Your task to perform on an android device: Play the last video I watched on Youtube Image 0: 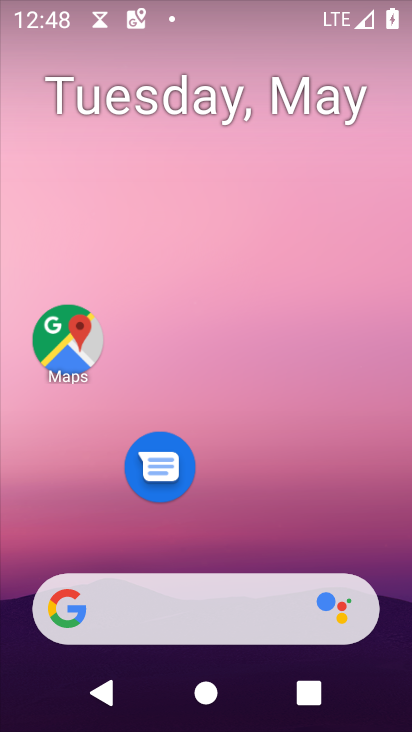
Step 0: drag from (279, 529) to (316, 56)
Your task to perform on an android device: Play the last video I watched on Youtube Image 1: 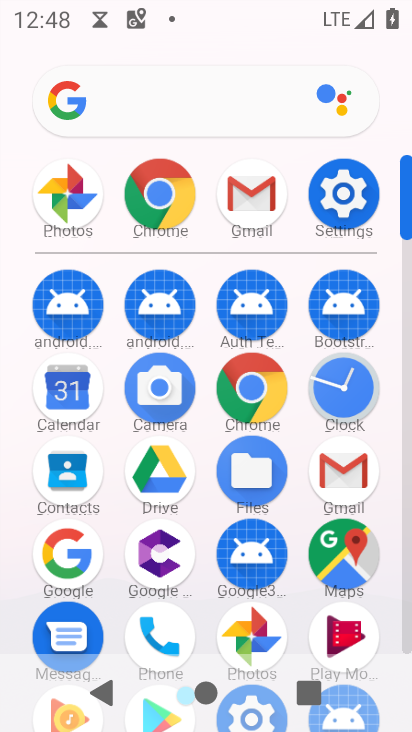
Step 1: drag from (312, 597) to (303, 260)
Your task to perform on an android device: Play the last video I watched on Youtube Image 2: 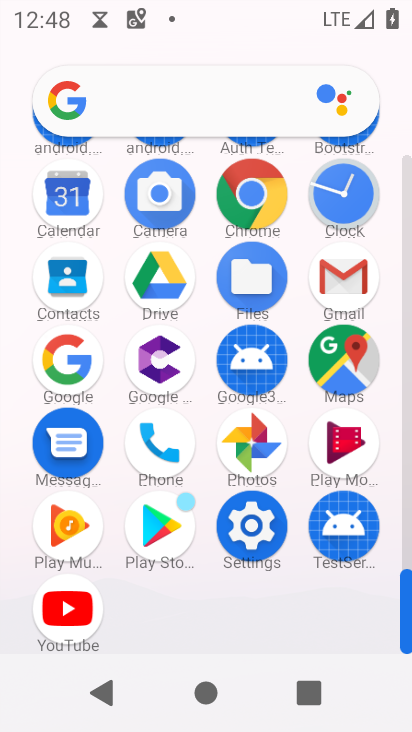
Step 2: click (66, 610)
Your task to perform on an android device: Play the last video I watched on Youtube Image 3: 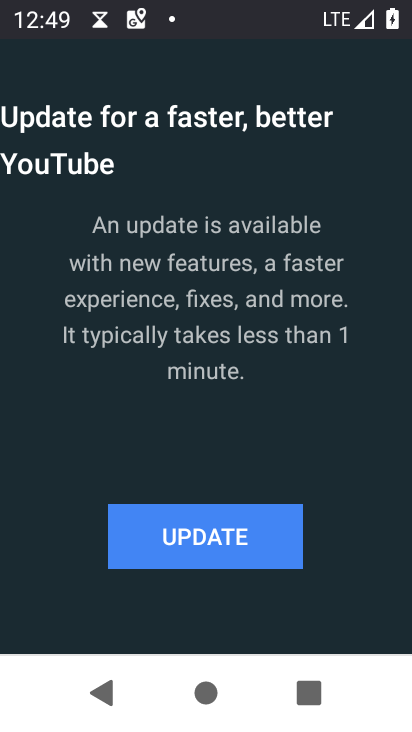
Step 3: click (191, 541)
Your task to perform on an android device: Play the last video I watched on Youtube Image 4: 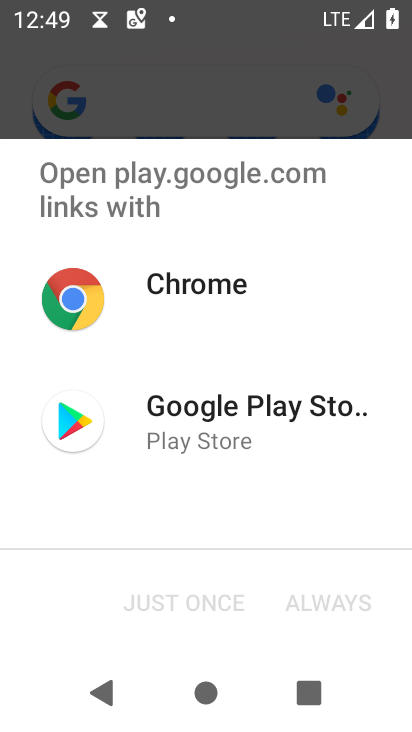
Step 4: click (230, 432)
Your task to perform on an android device: Play the last video I watched on Youtube Image 5: 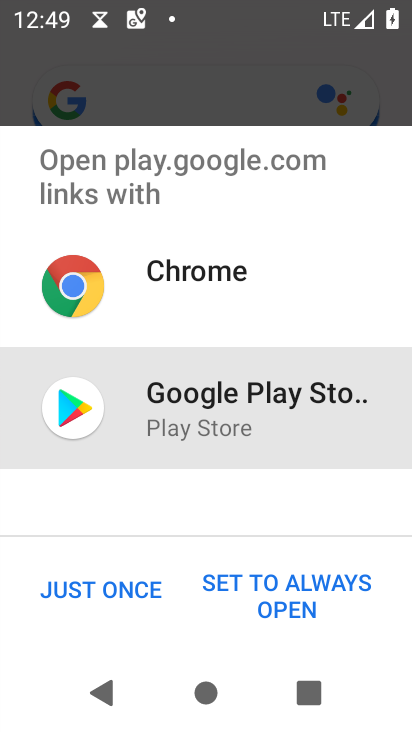
Step 5: click (127, 589)
Your task to perform on an android device: Play the last video I watched on Youtube Image 6: 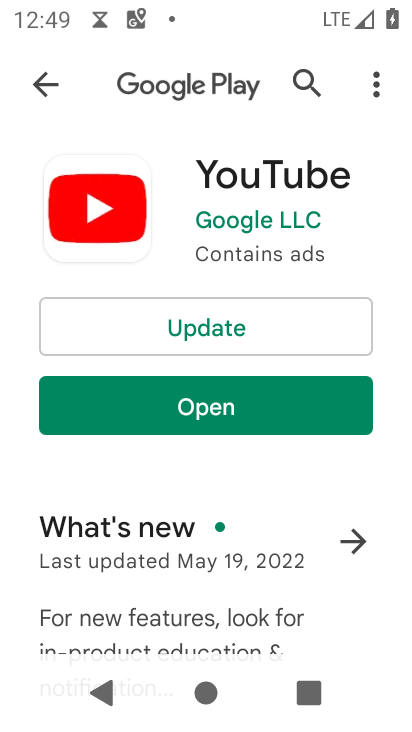
Step 6: click (257, 323)
Your task to perform on an android device: Play the last video I watched on Youtube Image 7: 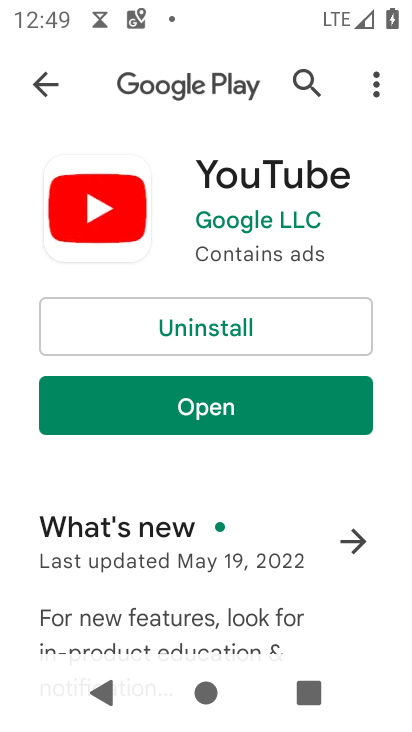
Step 7: click (240, 413)
Your task to perform on an android device: Play the last video I watched on Youtube Image 8: 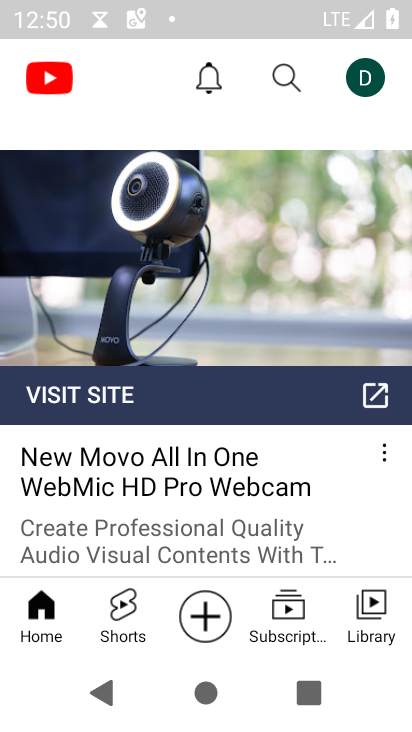
Step 8: click (382, 600)
Your task to perform on an android device: Play the last video I watched on Youtube Image 9: 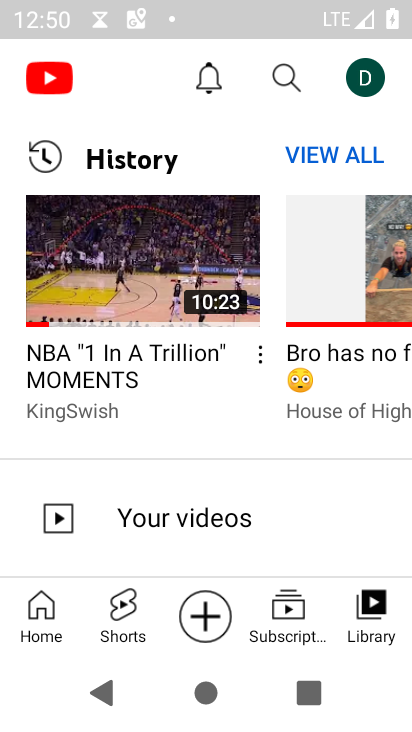
Step 9: click (170, 273)
Your task to perform on an android device: Play the last video I watched on Youtube Image 10: 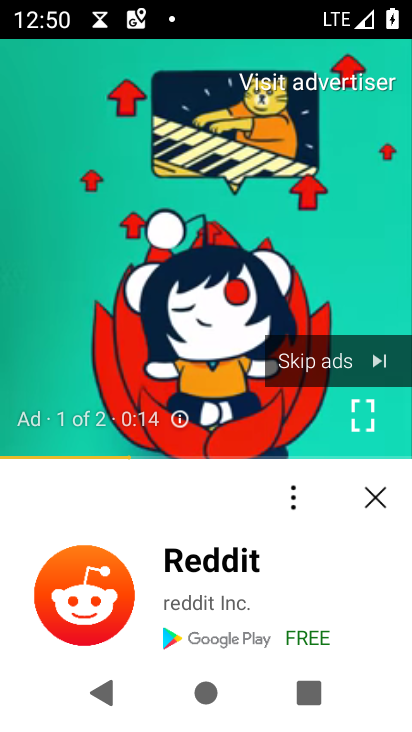
Step 10: click (366, 362)
Your task to perform on an android device: Play the last video I watched on Youtube Image 11: 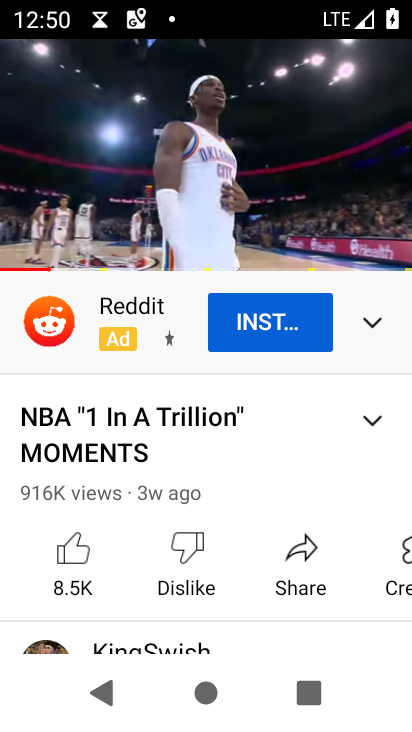
Step 11: task complete